Your task to perform on an android device: Open eBay Image 0: 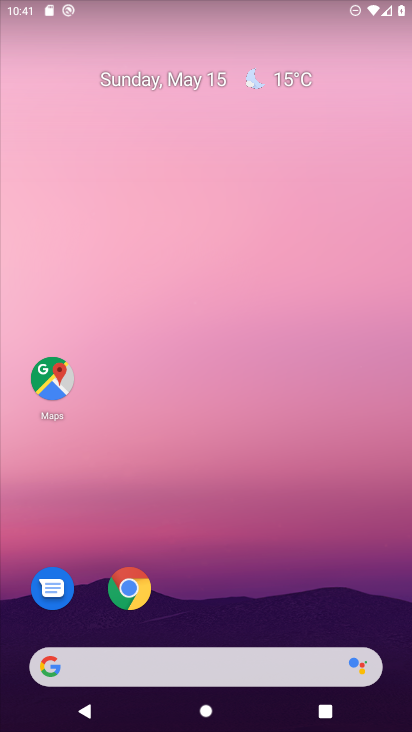
Step 0: drag from (261, 490) to (294, 150)
Your task to perform on an android device: Open eBay Image 1: 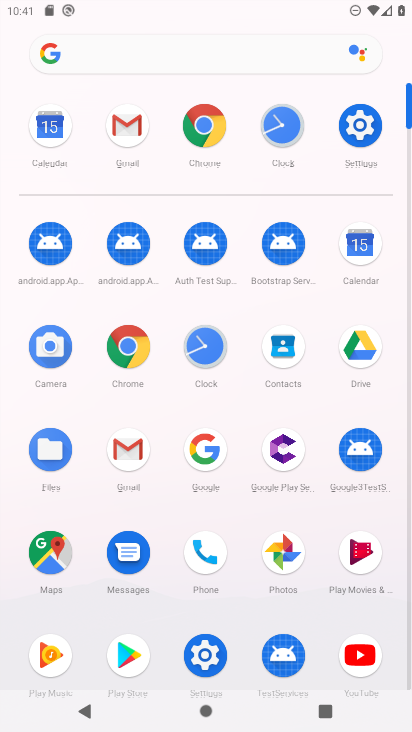
Step 1: click (132, 338)
Your task to perform on an android device: Open eBay Image 2: 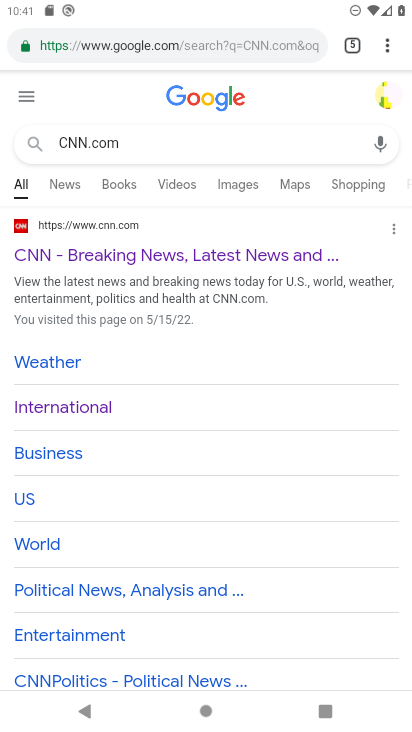
Step 2: click (157, 40)
Your task to perform on an android device: Open eBay Image 3: 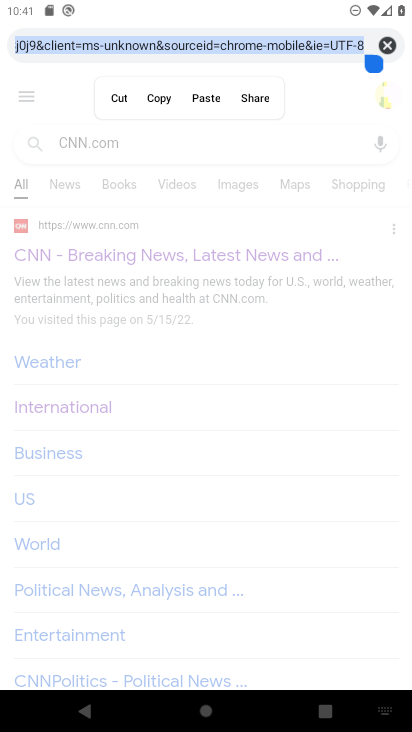
Step 3: type "eBay"
Your task to perform on an android device: Open eBay Image 4: 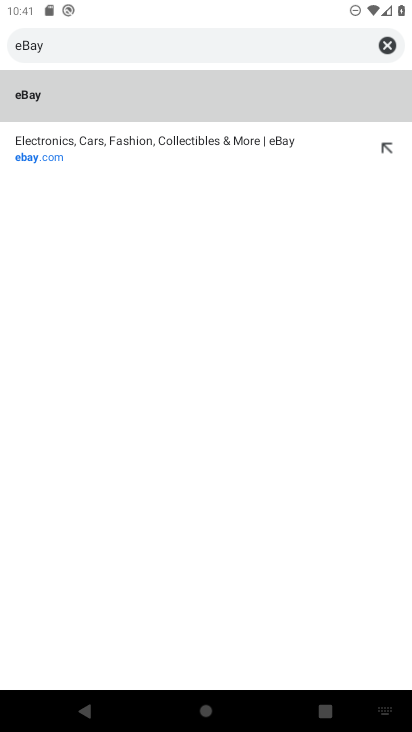
Step 4: click (75, 96)
Your task to perform on an android device: Open eBay Image 5: 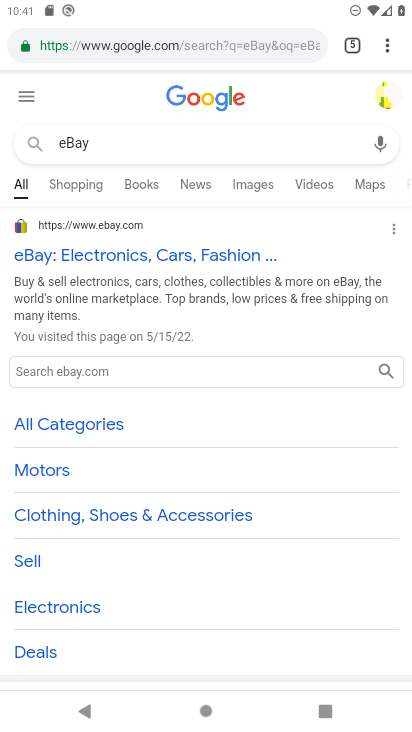
Step 5: task complete